Your task to perform on an android device: Open Youtube and go to the subscriptions tab Image 0: 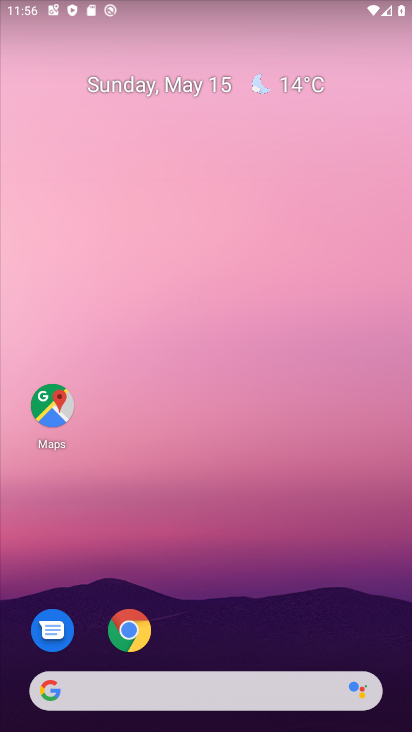
Step 0: drag from (283, 548) to (214, 124)
Your task to perform on an android device: Open Youtube and go to the subscriptions tab Image 1: 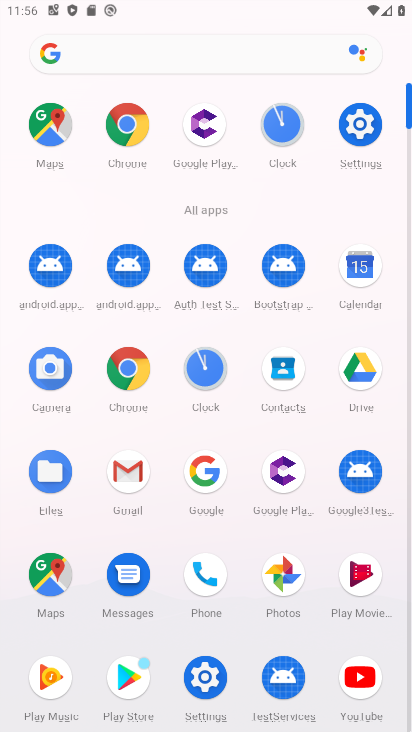
Step 1: click (361, 666)
Your task to perform on an android device: Open Youtube and go to the subscriptions tab Image 2: 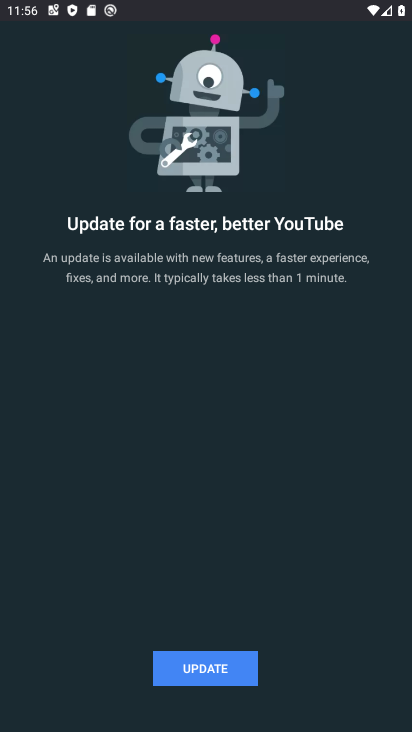
Step 2: click (255, 675)
Your task to perform on an android device: Open Youtube and go to the subscriptions tab Image 3: 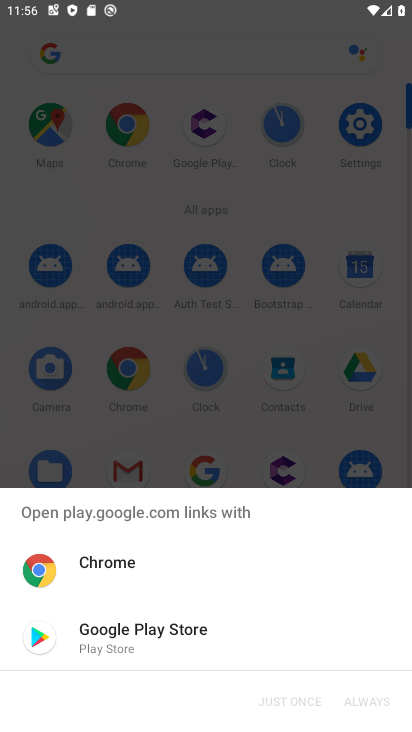
Step 3: click (203, 644)
Your task to perform on an android device: Open Youtube and go to the subscriptions tab Image 4: 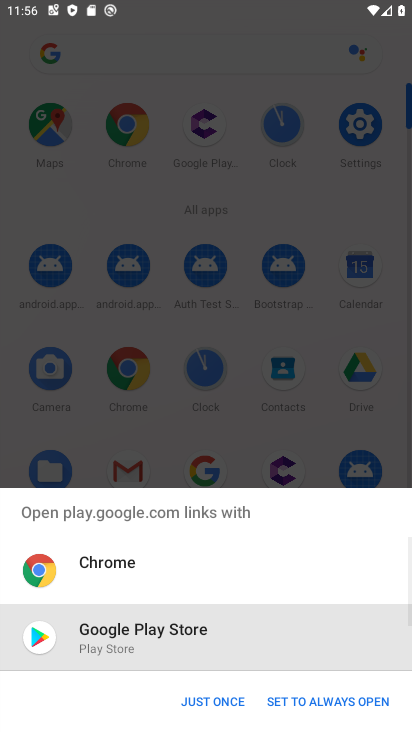
Step 4: click (211, 691)
Your task to perform on an android device: Open Youtube and go to the subscriptions tab Image 5: 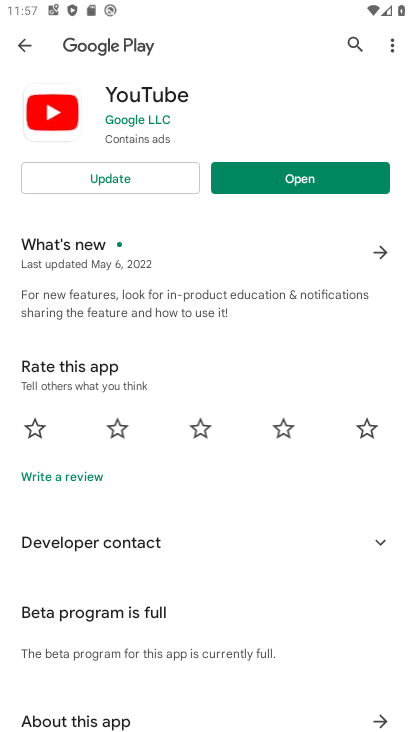
Step 5: click (164, 188)
Your task to perform on an android device: Open Youtube and go to the subscriptions tab Image 6: 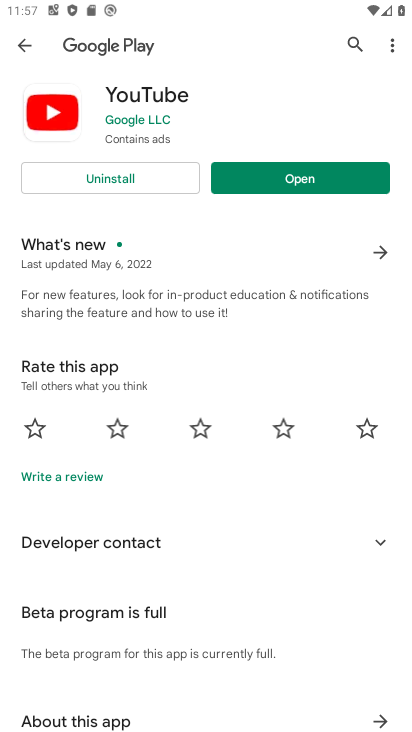
Step 6: click (281, 193)
Your task to perform on an android device: Open Youtube and go to the subscriptions tab Image 7: 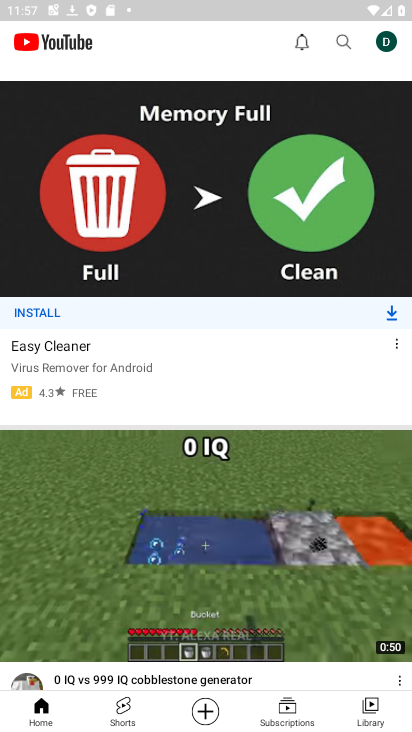
Step 7: click (285, 707)
Your task to perform on an android device: Open Youtube and go to the subscriptions tab Image 8: 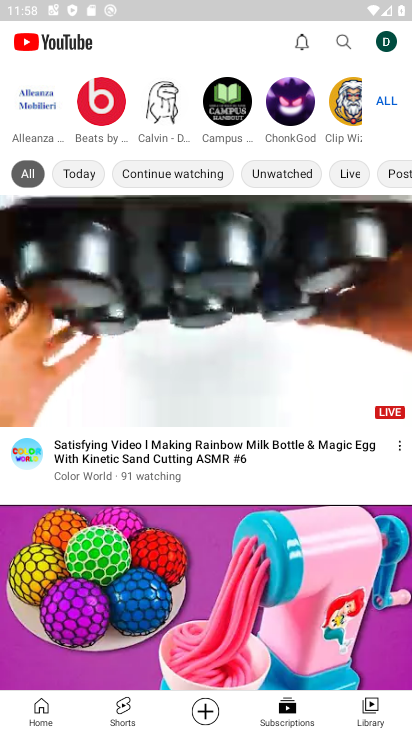
Step 8: task complete